Your task to perform on an android device: Open Chrome and go to the settings page Image 0: 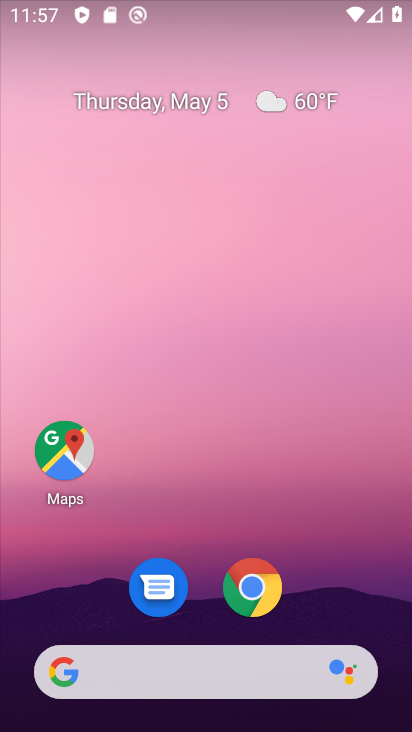
Step 0: drag from (326, 294) to (326, 196)
Your task to perform on an android device: Open Chrome and go to the settings page Image 1: 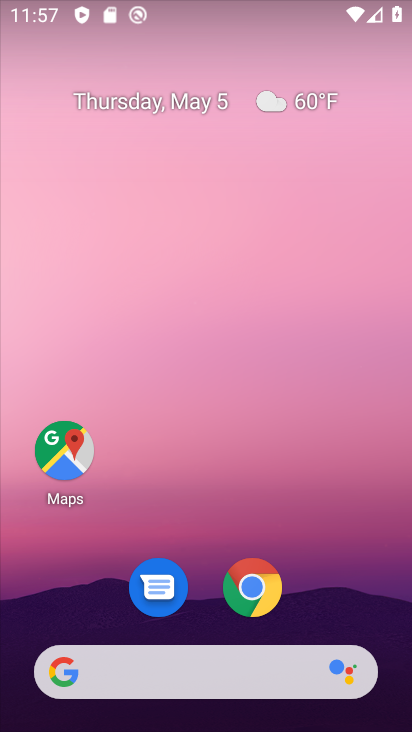
Step 1: click (253, 587)
Your task to perform on an android device: Open Chrome and go to the settings page Image 2: 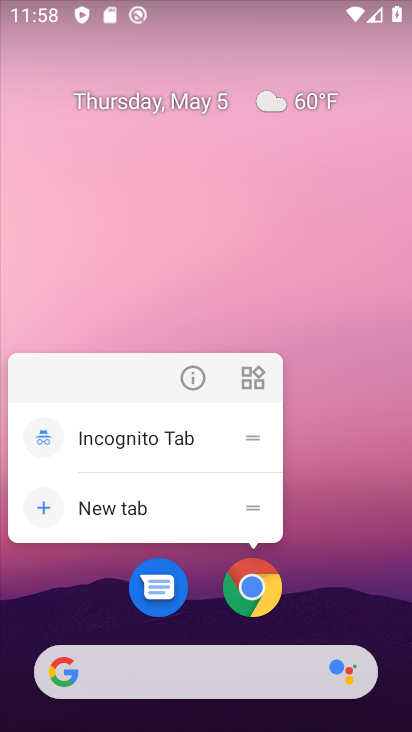
Step 2: click (353, 439)
Your task to perform on an android device: Open Chrome and go to the settings page Image 3: 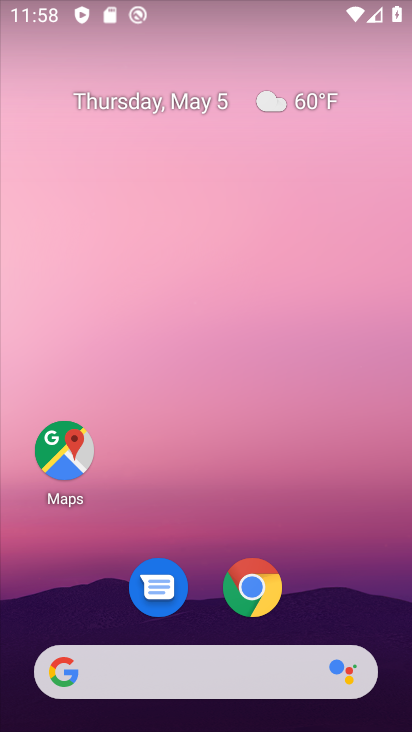
Step 3: click (242, 588)
Your task to perform on an android device: Open Chrome and go to the settings page Image 4: 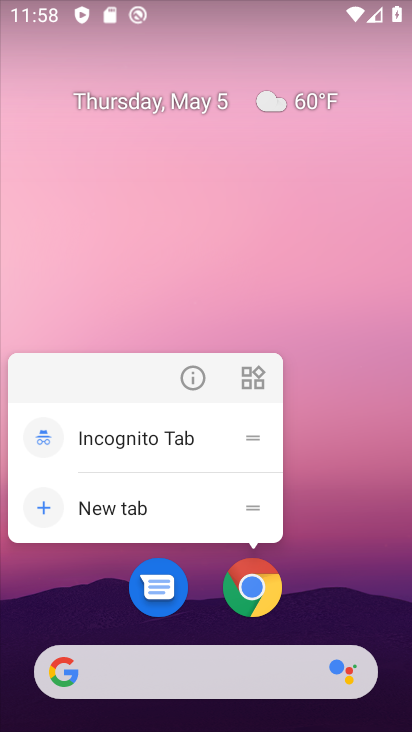
Step 4: click (248, 588)
Your task to perform on an android device: Open Chrome and go to the settings page Image 5: 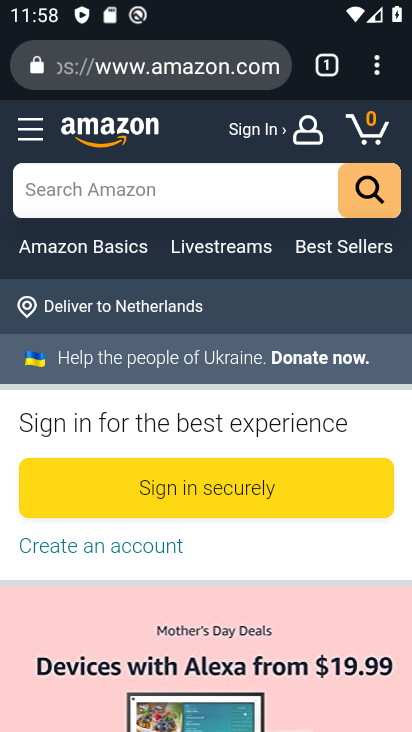
Step 5: click (376, 56)
Your task to perform on an android device: Open Chrome and go to the settings page Image 6: 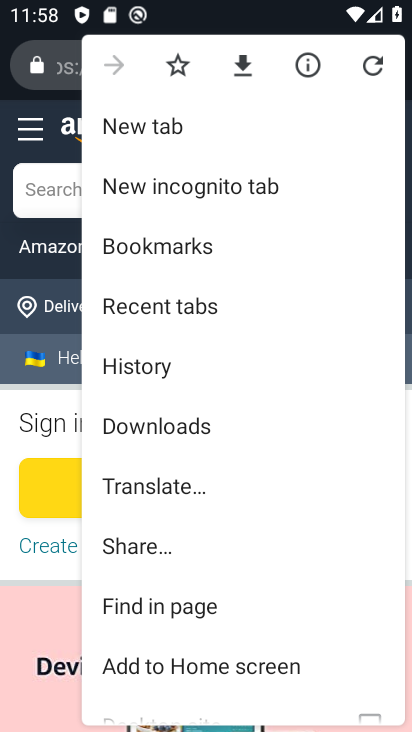
Step 6: click (317, 250)
Your task to perform on an android device: Open Chrome and go to the settings page Image 7: 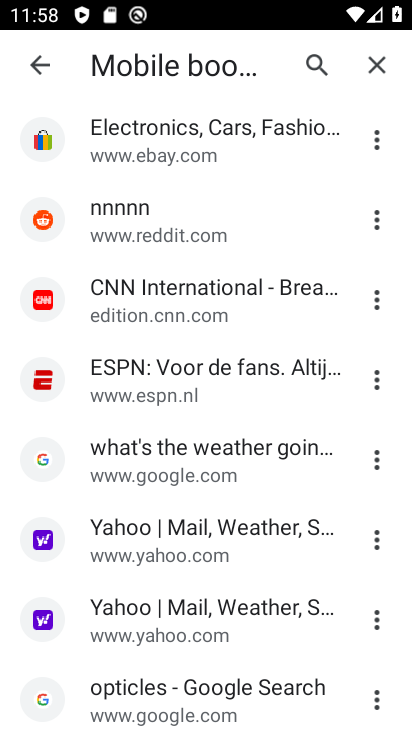
Step 7: click (30, 70)
Your task to perform on an android device: Open Chrome and go to the settings page Image 8: 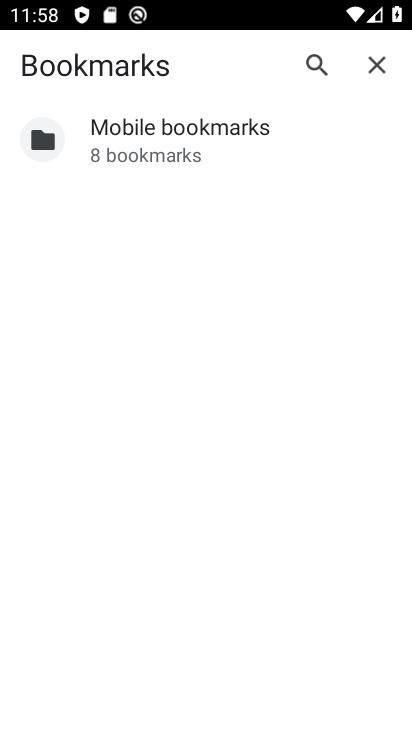
Step 8: click (371, 59)
Your task to perform on an android device: Open Chrome and go to the settings page Image 9: 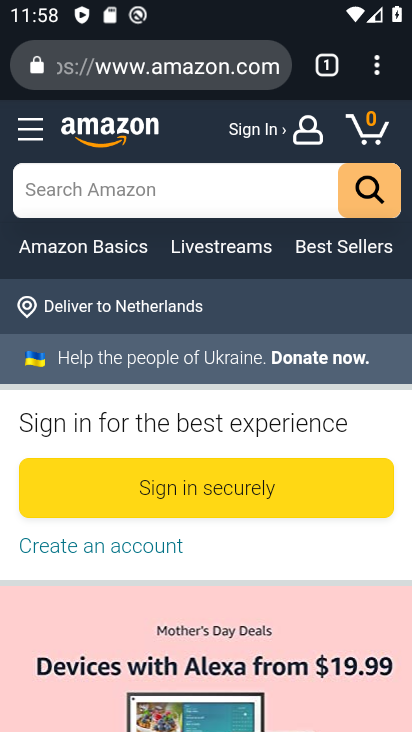
Step 9: click (373, 58)
Your task to perform on an android device: Open Chrome and go to the settings page Image 10: 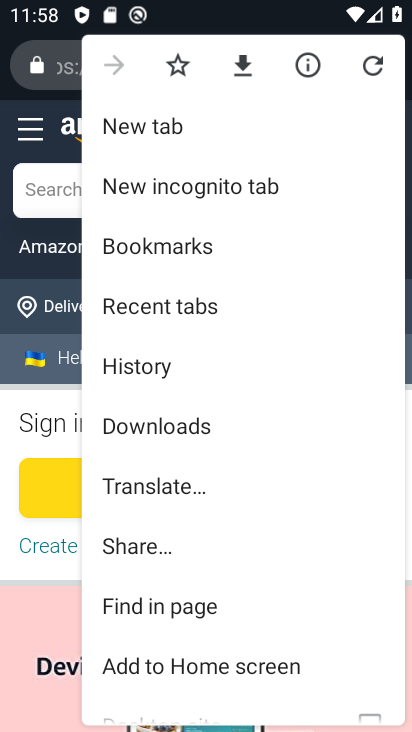
Step 10: drag from (298, 638) to (264, 312)
Your task to perform on an android device: Open Chrome and go to the settings page Image 11: 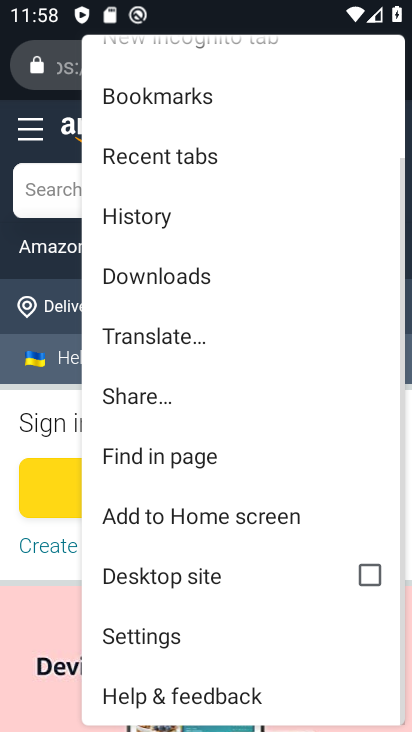
Step 11: click (154, 632)
Your task to perform on an android device: Open Chrome and go to the settings page Image 12: 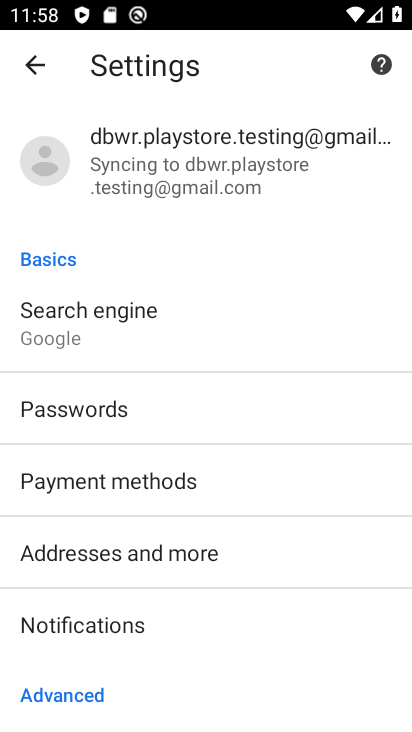
Step 12: task complete